Your task to perform on an android device: Add "dell alienware" to the cart on target, then select checkout. Image 0: 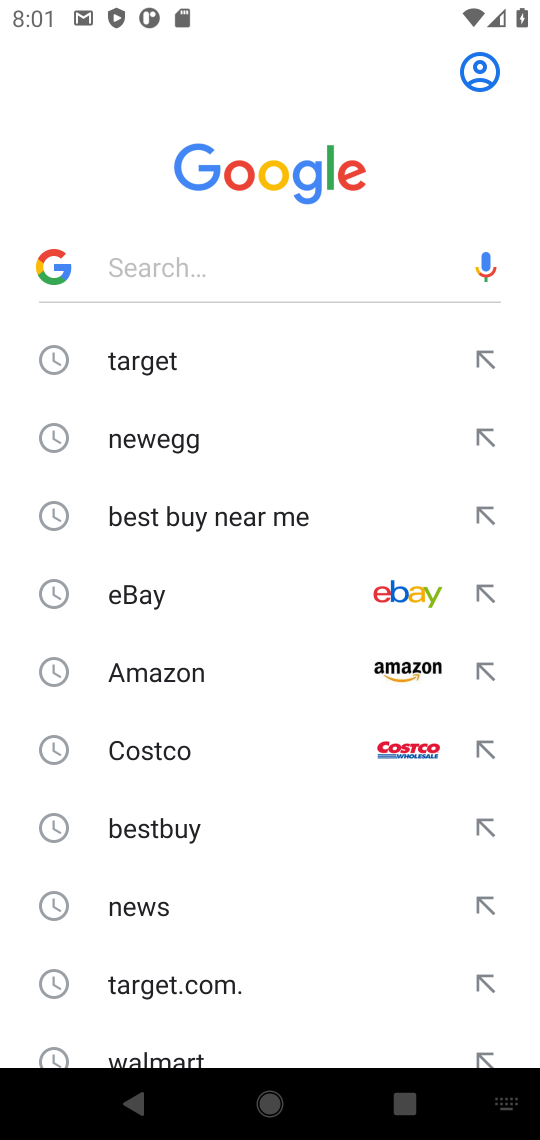
Step 0: press home button
Your task to perform on an android device: Add "dell alienware" to the cart on target, then select checkout. Image 1: 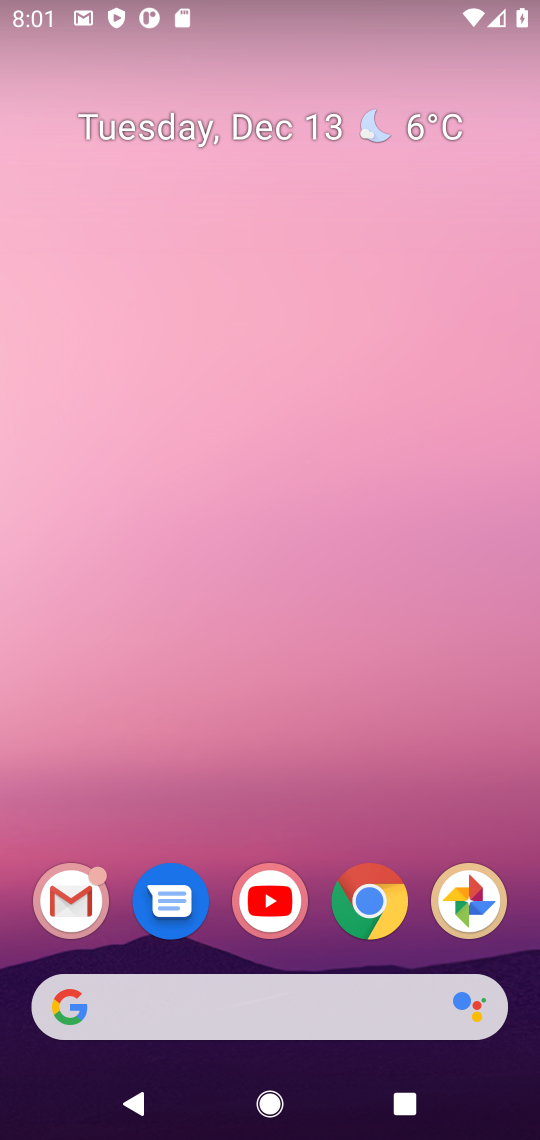
Step 1: click (370, 901)
Your task to perform on an android device: Add "dell alienware" to the cart on target, then select checkout. Image 2: 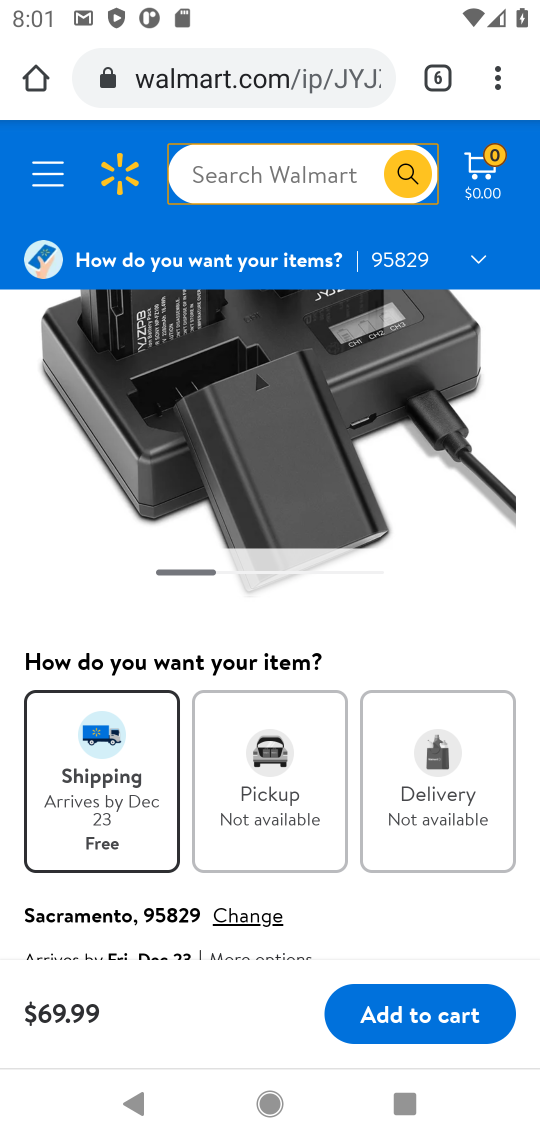
Step 2: click (438, 78)
Your task to perform on an android device: Add "dell alienware" to the cart on target, then select checkout. Image 3: 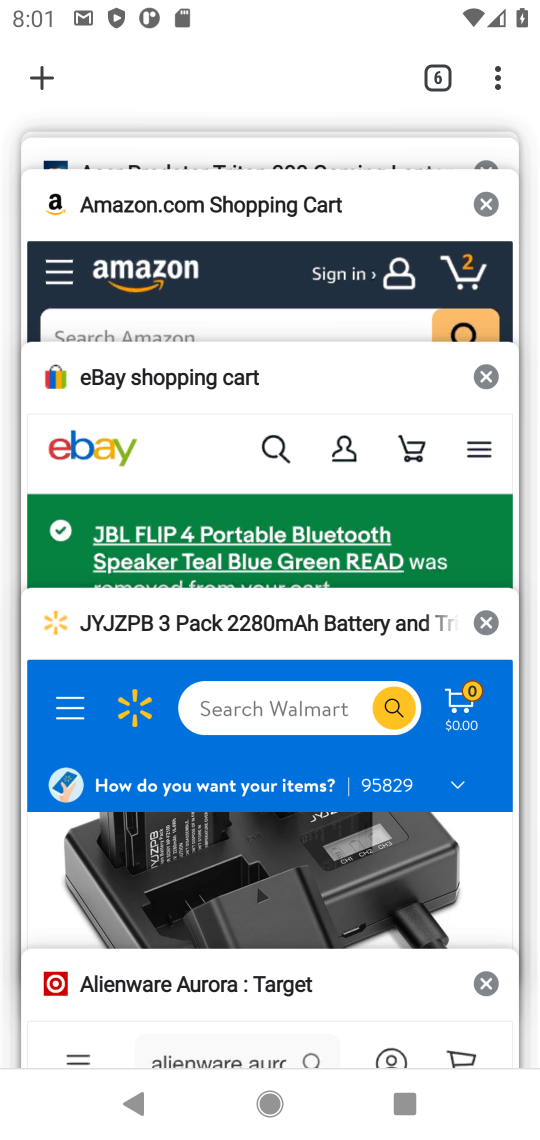
Step 3: click (169, 989)
Your task to perform on an android device: Add "dell alienware" to the cart on target, then select checkout. Image 4: 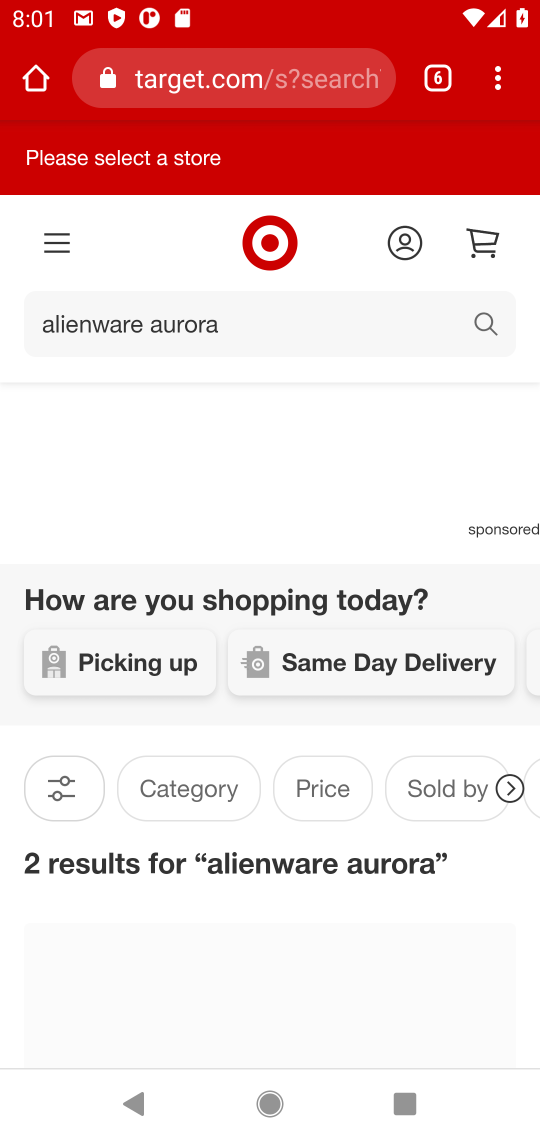
Step 4: click (273, 338)
Your task to perform on an android device: Add "dell alienware" to the cart on target, then select checkout. Image 5: 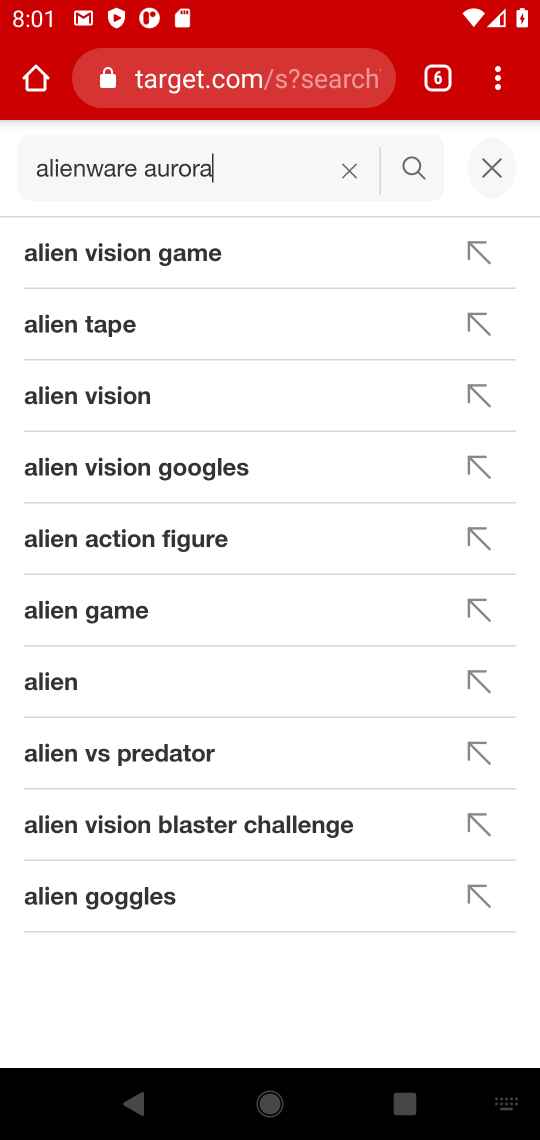
Step 5: click (357, 178)
Your task to perform on an android device: Add "dell alienware" to the cart on target, then select checkout. Image 6: 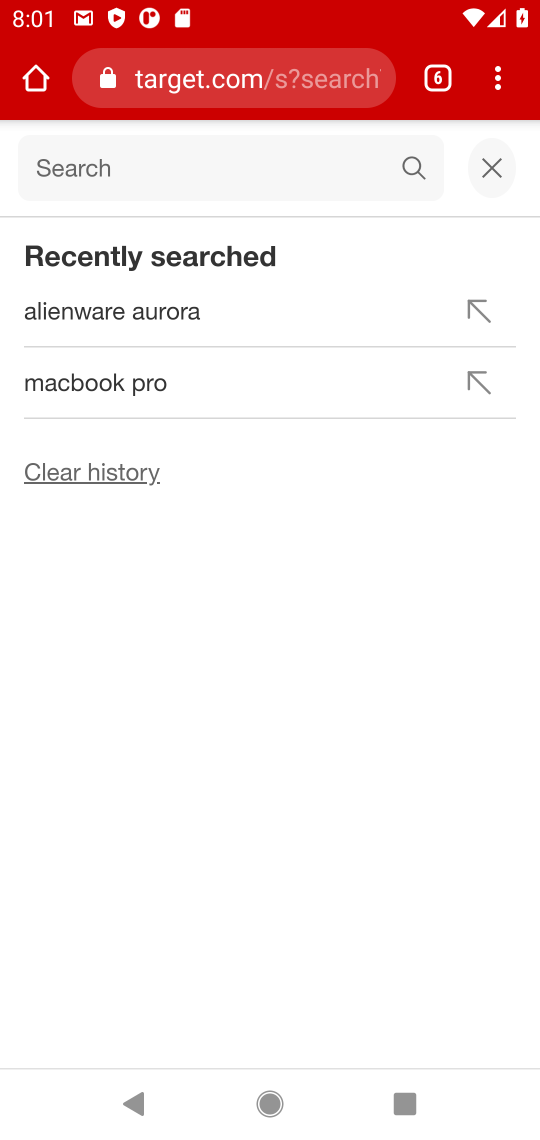
Step 6: click (274, 165)
Your task to perform on an android device: Add "dell alienware" to the cart on target, then select checkout. Image 7: 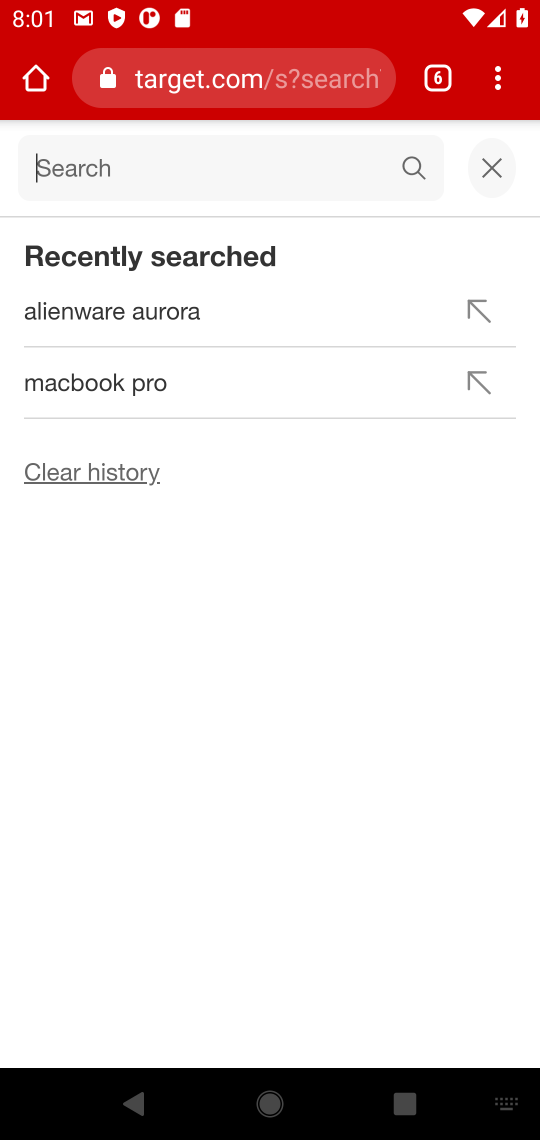
Step 7: type "dell alienware"
Your task to perform on an android device: Add "dell alienware" to the cart on target, then select checkout. Image 8: 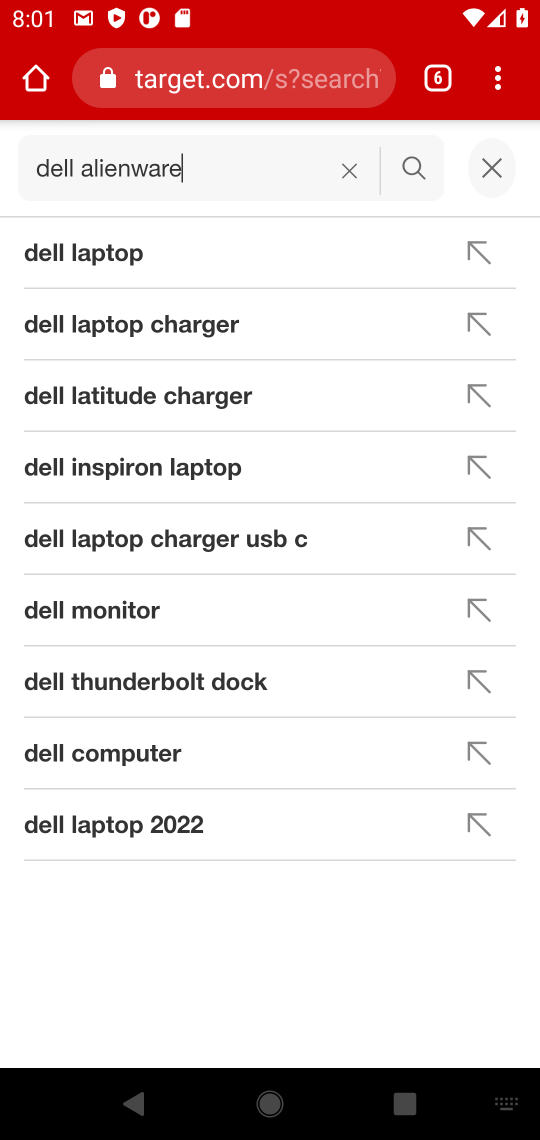
Step 8: click (416, 166)
Your task to perform on an android device: Add "dell alienware" to the cart on target, then select checkout. Image 9: 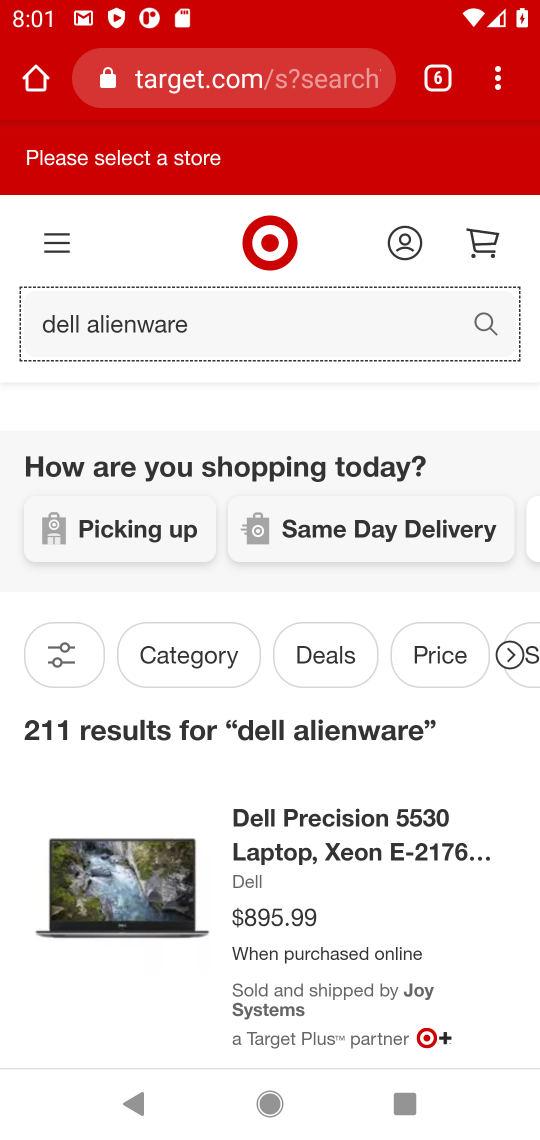
Step 9: task complete